Your task to perform on an android device: Show me popular games on the Play Store Image 0: 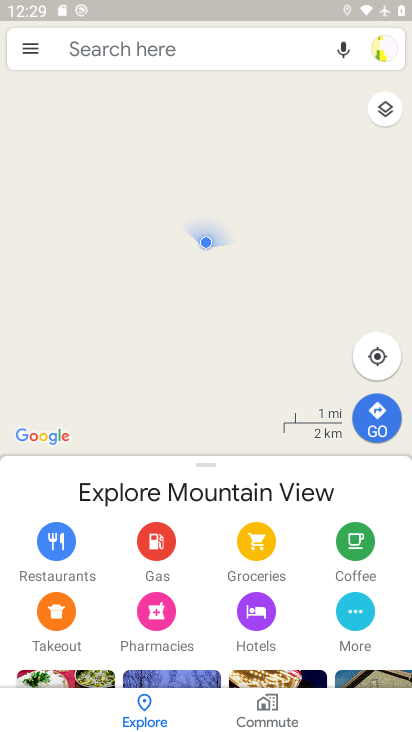
Step 0: press home button
Your task to perform on an android device: Show me popular games on the Play Store Image 1: 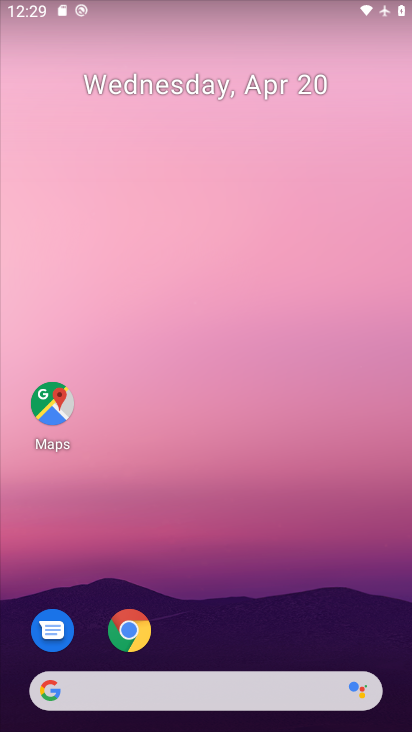
Step 1: drag from (165, 690) to (359, 61)
Your task to perform on an android device: Show me popular games on the Play Store Image 2: 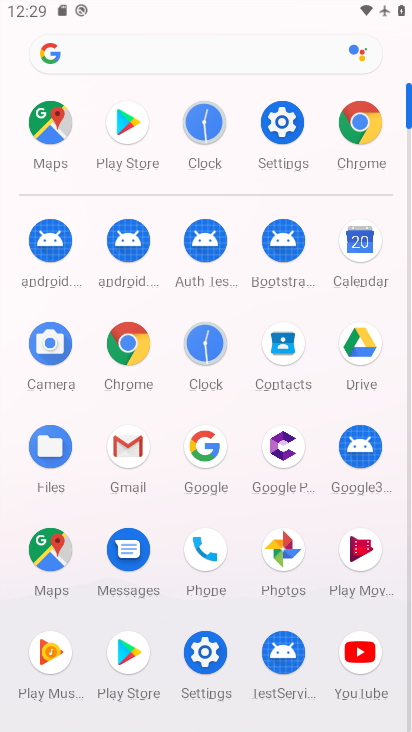
Step 2: click (129, 646)
Your task to perform on an android device: Show me popular games on the Play Store Image 3: 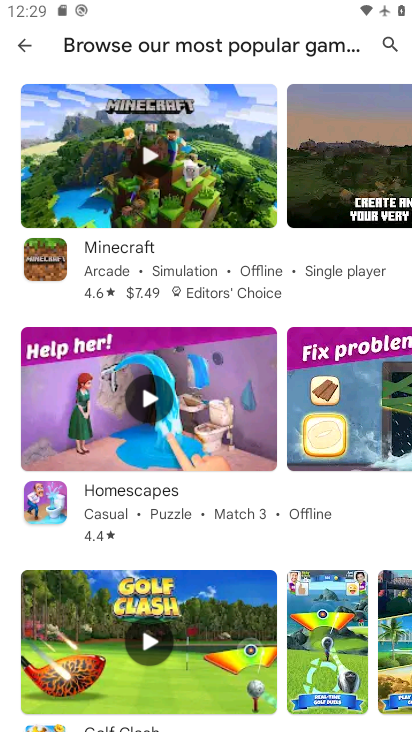
Step 3: task complete